Your task to perform on an android device: turn off translation in the chrome app Image 0: 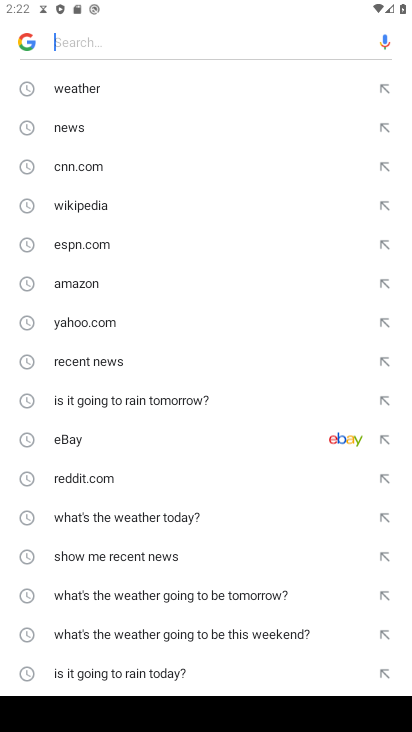
Step 0: press home button
Your task to perform on an android device: turn off translation in the chrome app Image 1: 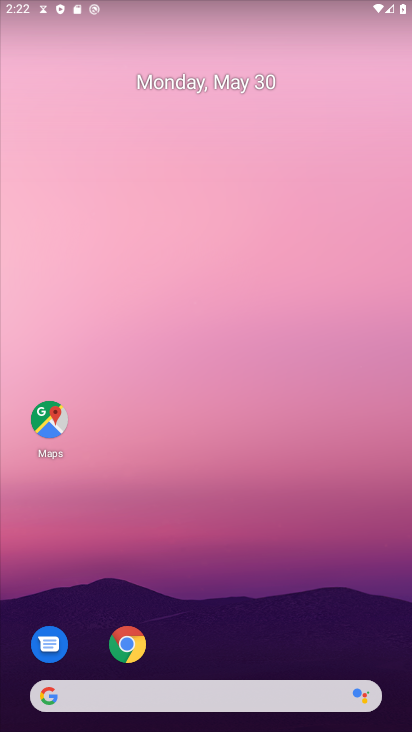
Step 1: click (123, 647)
Your task to perform on an android device: turn off translation in the chrome app Image 2: 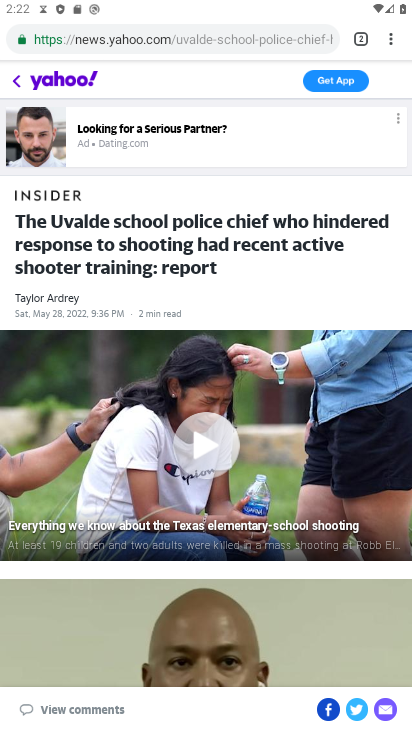
Step 2: drag from (388, 38) to (244, 475)
Your task to perform on an android device: turn off translation in the chrome app Image 3: 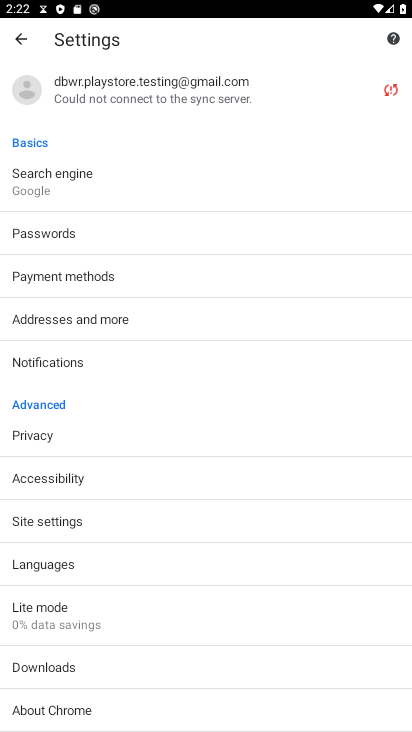
Step 3: click (47, 565)
Your task to perform on an android device: turn off translation in the chrome app Image 4: 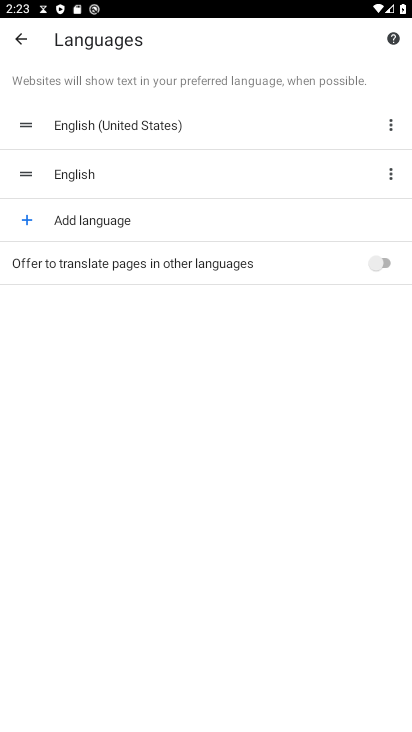
Step 4: task complete